Your task to perform on an android device: Open Google Maps Image 0: 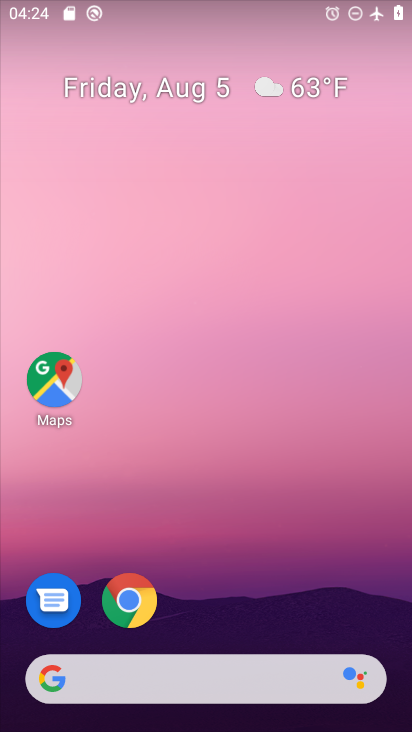
Step 0: click (53, 380)
Your task to perform on an android device: Open Google Maps Image 1: 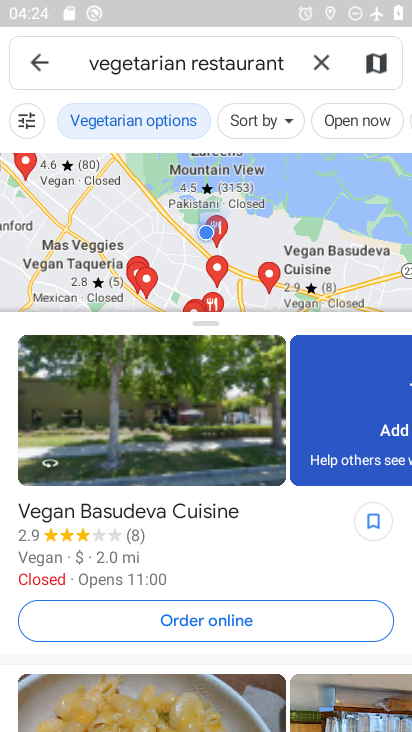
Step 1: task complete